Your task to perform on an android device: Open Google Chrome and click the shortcut for Amazon.com Image 0: 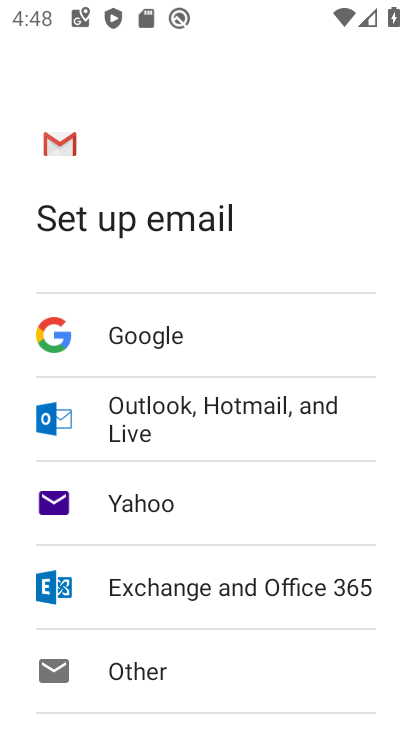
Step 0: press back button
Your task to perform on an android device: Open Google Chrome and click the shortcut for Amazon.com Image 1: 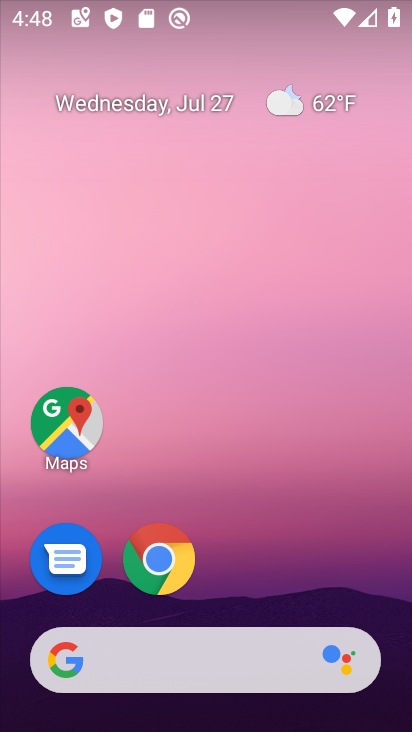
Step 1: click (153, 562)
Your task to perform on an android device: Open Google Chrome and click the shortcut for Amazon.com Image 2: 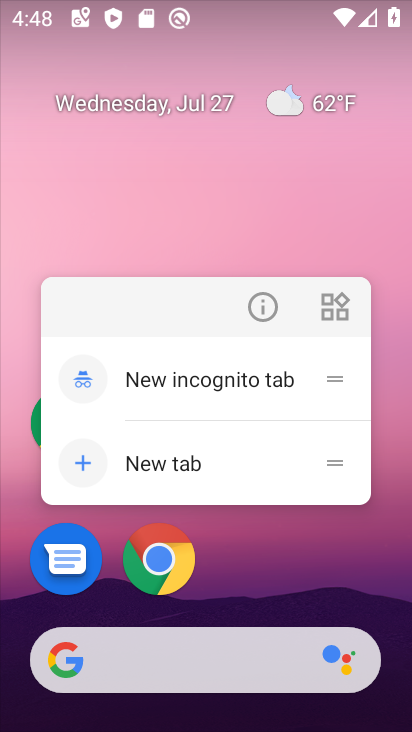
Step 2: click (170, 552)
Your task to perform on an android device: Open Google Chrome and click the shortcut for Amazon.com Image 3: 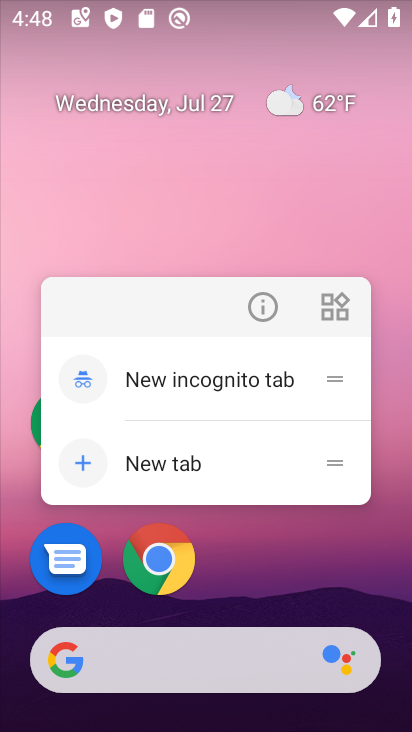
Step 3: click (172, 550)
Your task to perform on an android device: Open Google Chrome and click the shortcut for Amazon.com Image 4: 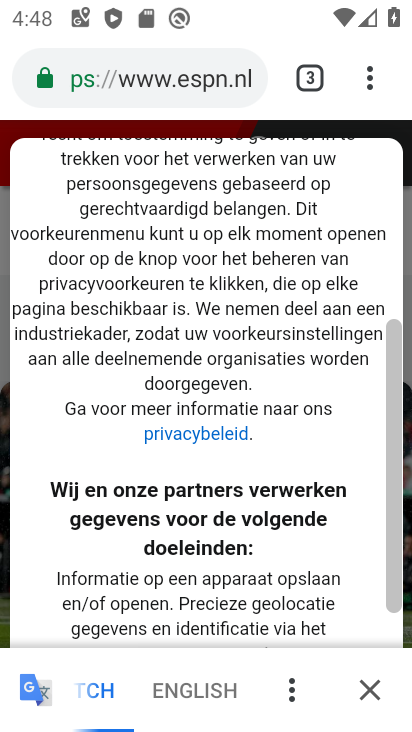
Step 4: drag from (373, 71) to (83, 149)
Your task to perform on an android device: Open Google Chrome and click the shortcut for Amazon.com Image 5: 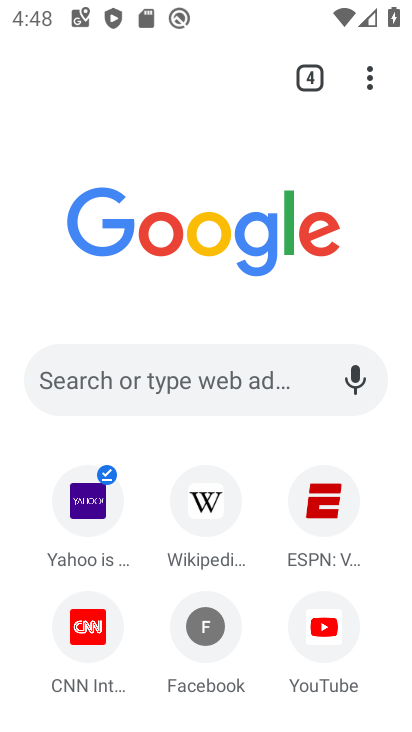
Step 5: drag from (244, 665) to (270, 563)
Your task to perform on an android device: Open Google Chrome and click the shortcut for Amazon.com Image 6: 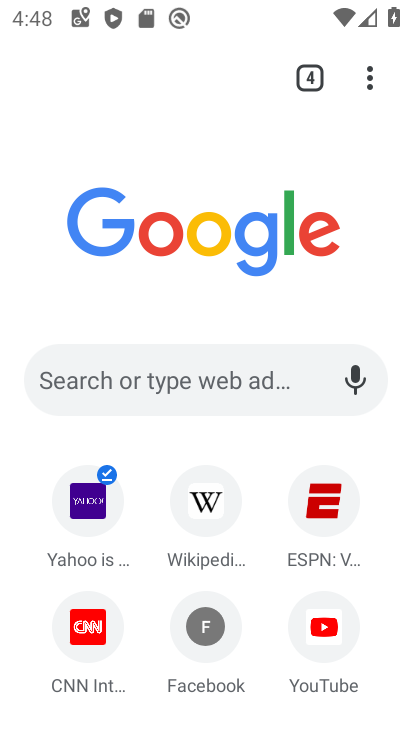
Step 6: click (130, 339)
Your task to perform on an android device: Open Google Chrome and click the shortcut for Amazon.com Image 7: 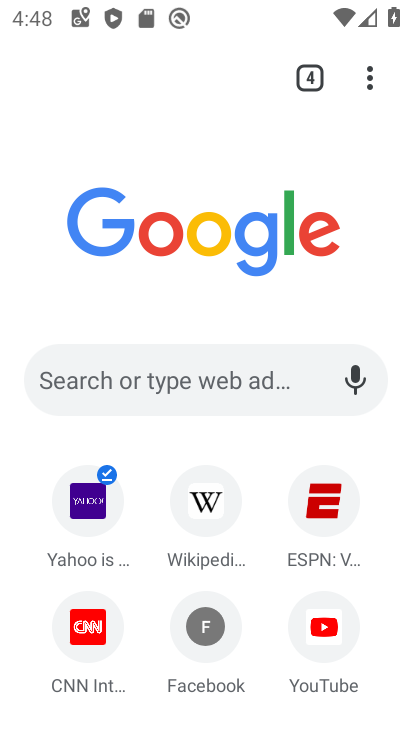
Step 7: click (119, 375)
Your task to perform on an android device: Open Google Chrome and click the shortcut for Amazon.com Image 8: 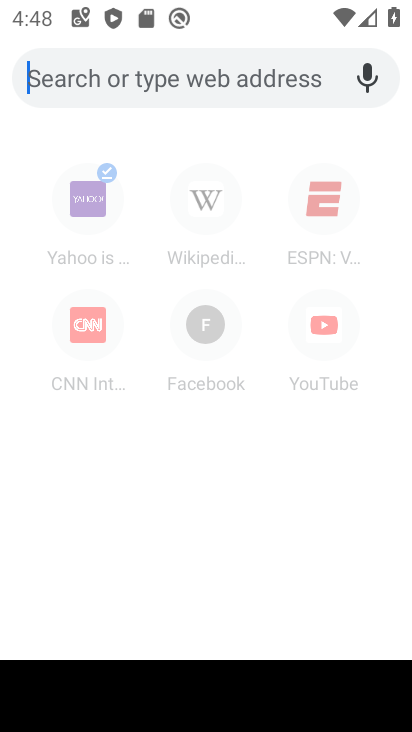
Step 8: type "amazon"
Your task to perform on an android device: Open Google Chrome and click the shortcut for Amazon.com Image 9: 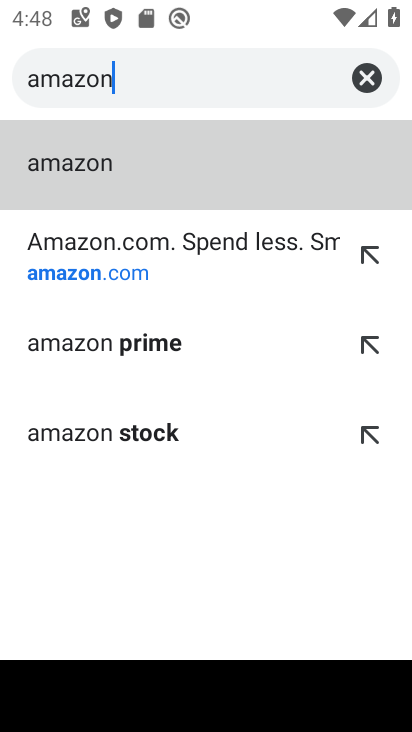
Step 9: click (111, 265)
Your task to perform on an android device: Open Google Chrome and click the shortcut for Amazon.com Image 10: 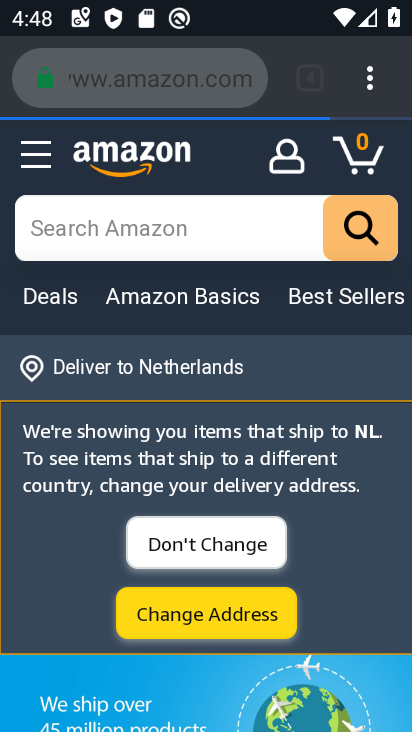
Step 10: task complete